Your task to perform on an android device: What's the weather going to be this weekend? Image 0: 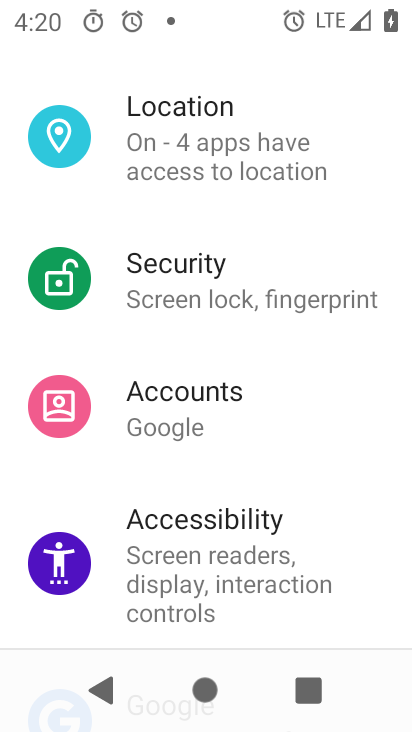
Step 0: press home button
Your task to perform on an android device: What's the weather going to be this weekend? Image 1: 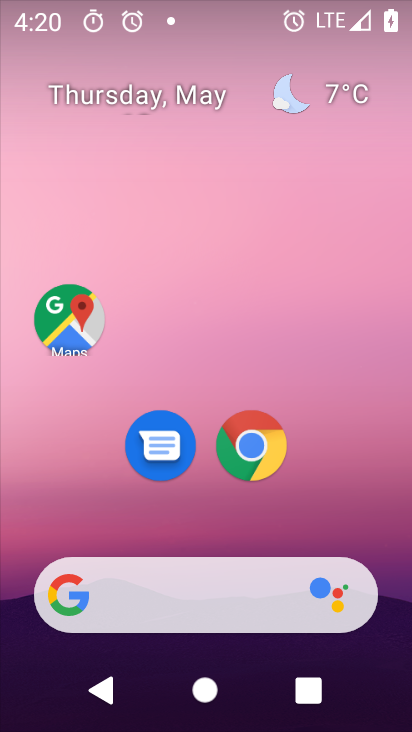
Step 1: click (346, 91)
Your task to perform on an android device: What's the weather going to be this weekend? Image 2: 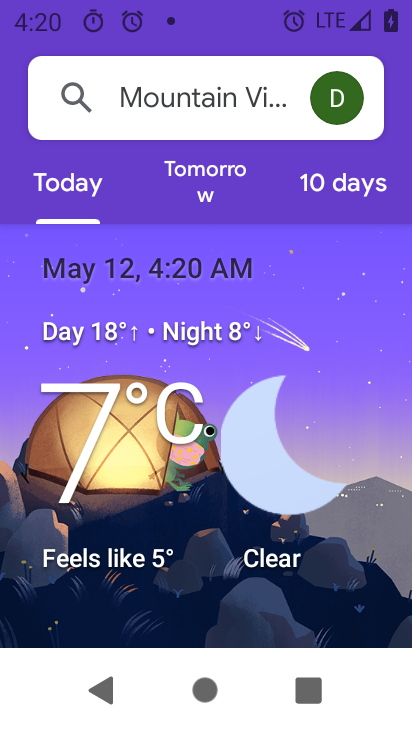
Step 2: click (350, 198)
Your task to perform on an android device: What's the weather going to be this weekend? Image 3: 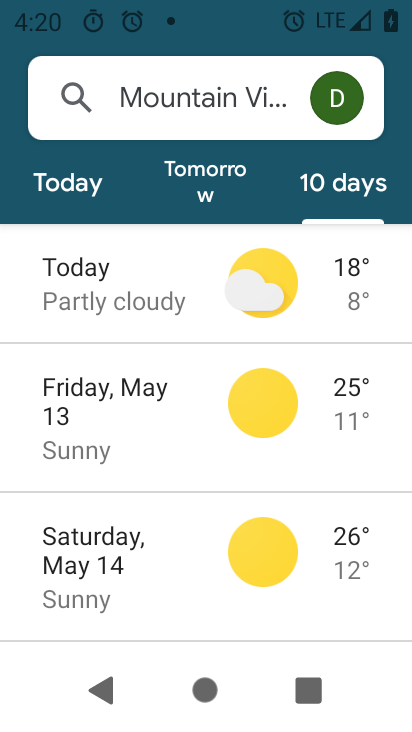
Step 3: task complete